Your task to perform on an android device: Open accessibility settings Image 0: 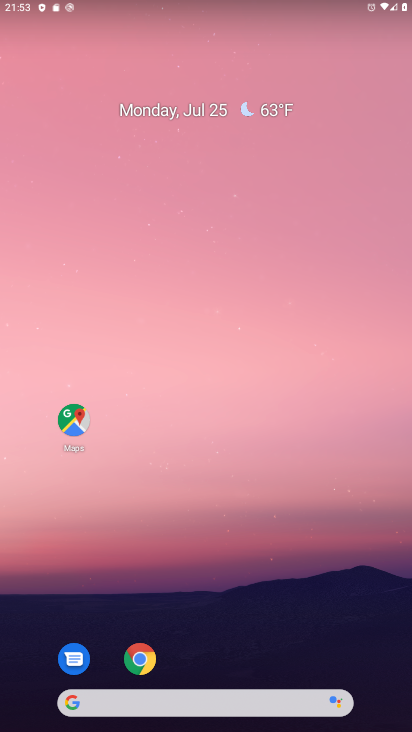
Step 0: drag from (181, 720) to (181, 81)
Your task to perform on an android device: Open accessibility settings Image 1: 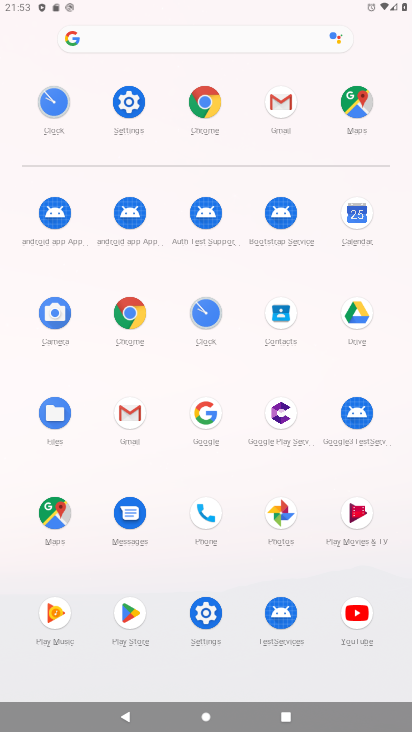
Step 1: click (123, 94)
Your task to perform on an android device: Open accessibility settings Image 2: 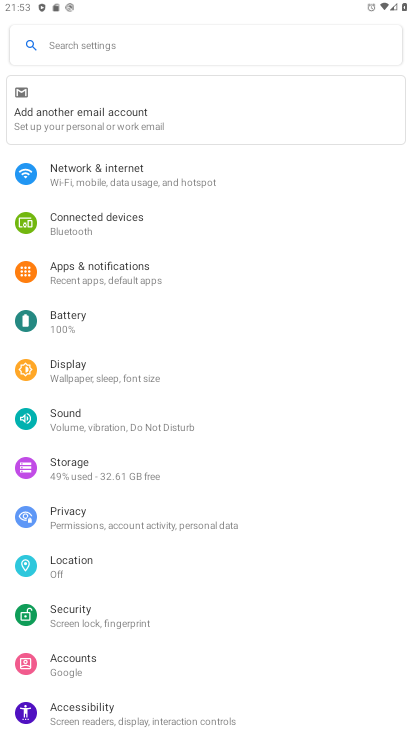
Step 2: click (81, 706)
Your task to perform on an android device: Open accessibility settings Image 3: 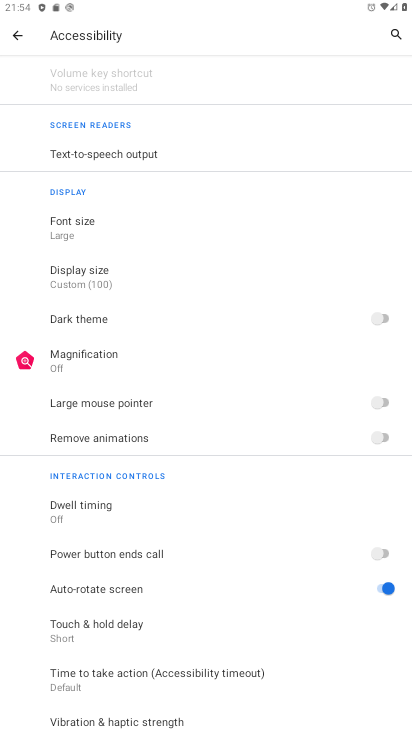
Step 3: task complete